Your task to perform on an android device: Turn off the flashlight Image 0: 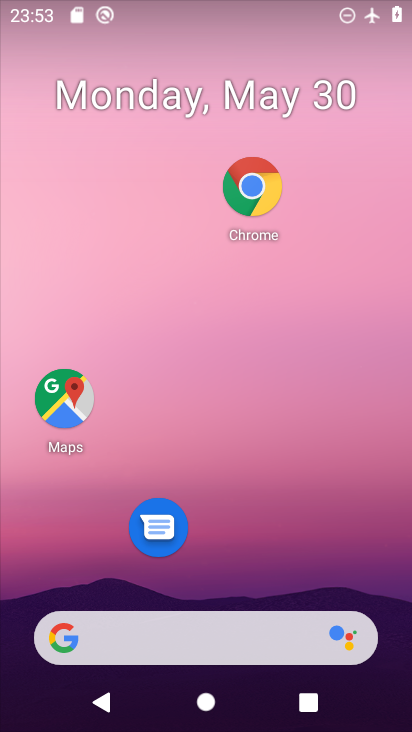
Step 0: drag from (243, 553) to (233, 254)
Your task to perform on an android device: Turn off the flashlight Image 1: 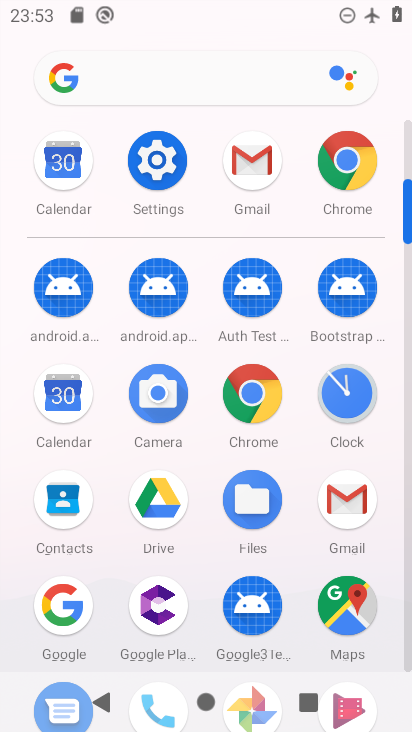
Step 1: click (162, 161)
Your task to perform on an android device: Turn off the flashlight Image 2: 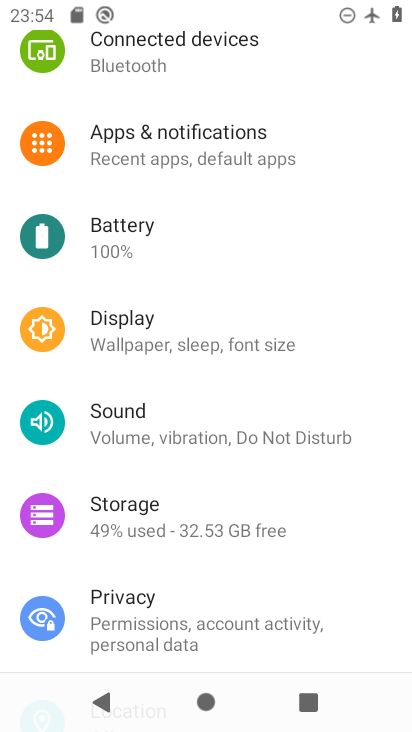
Step 2: task complete